Your task to perform on an android device: delete a single message in the gmail app Image 0: 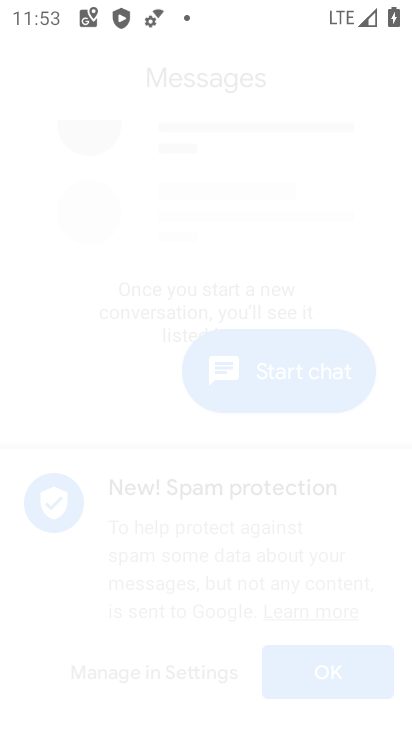
Step 0: click (76, 418)
Your task to perform on an android device: delete a single message in the gmail app Image 1: 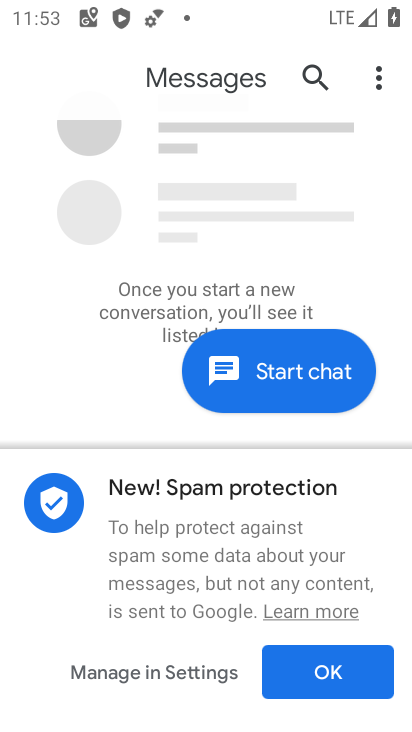
Step 1: press back button
Your task to perform on an android device: delete a single message in the gmail app Image 2: 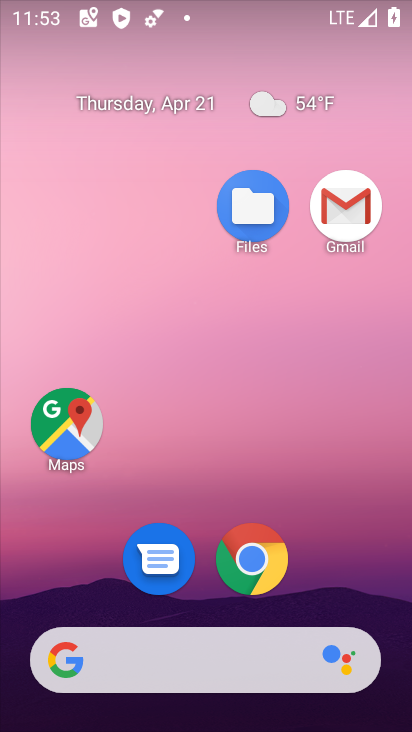
Step 2: click (354, 190)
Your task to perform on an android device: delete a single message in the gmail app Image 3: 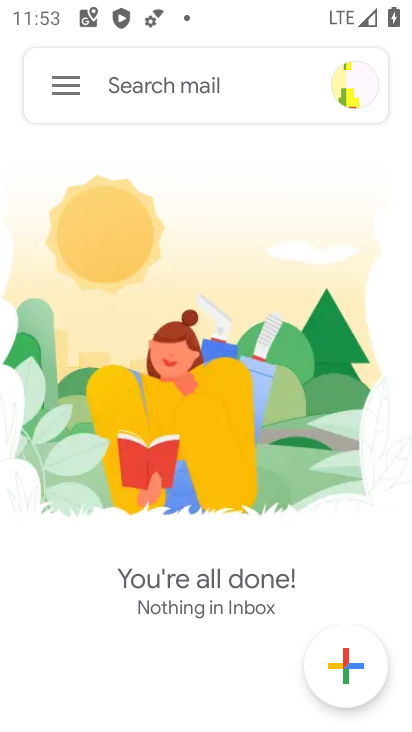
Step 3: task complete